Your task to perform on an android device: Go to Google Image 0: 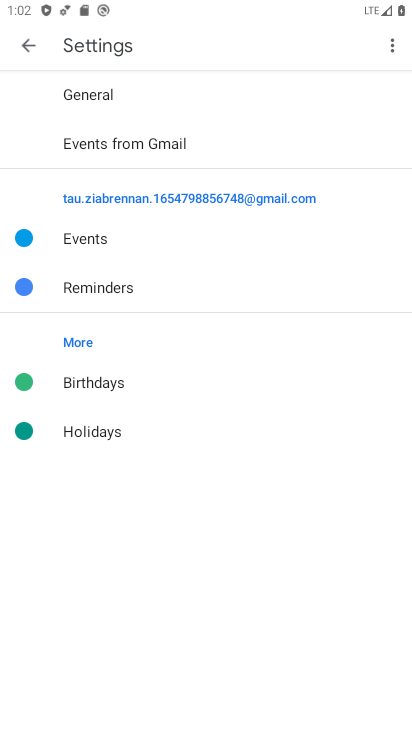
Step 0: press home button
Your task to perform on an android device: Go to Google Image 1: 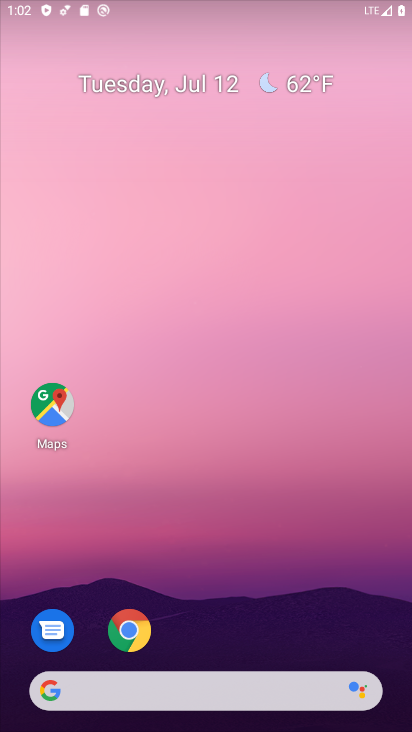
Step 1: drag from (215, 652) to (270, 86)
Your task to perform on an android device: Go to Google Image 2: 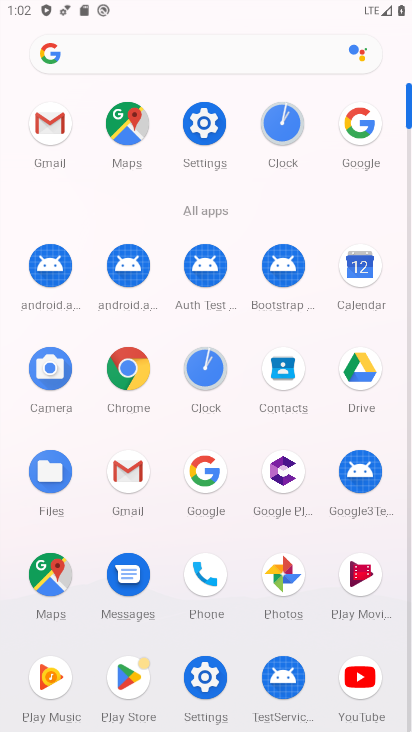
Step 2: click (207, 473)
Your task to perform on an android device: Go to Google Image 3: 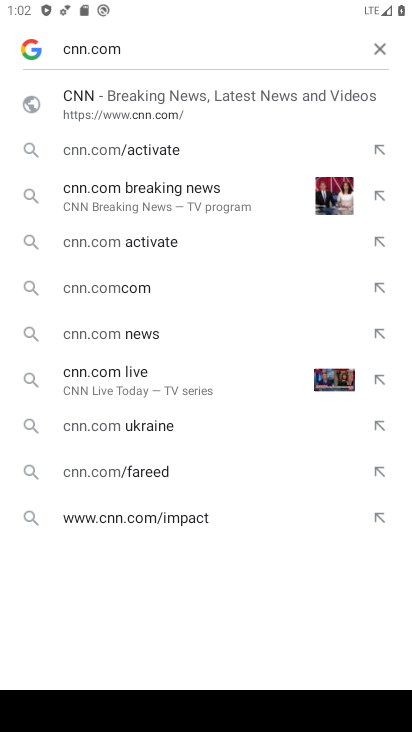
Step 3: click (380, 49)
Your task to perform on an android device: Go to Google Image 4: 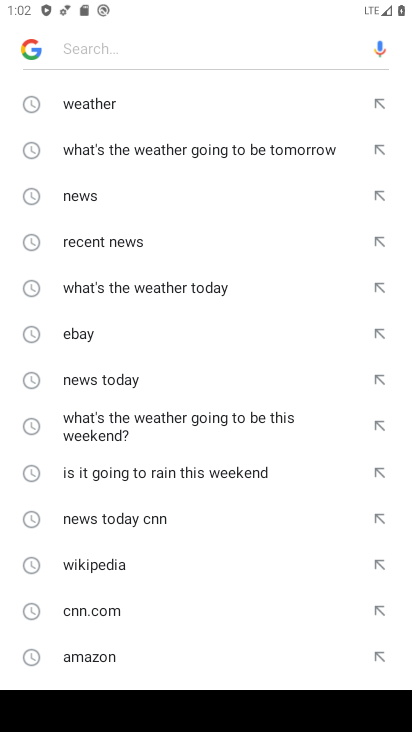
Step 4: task complete